Your task to perform on an android device: turn pop-ups on in chrome Image 0: 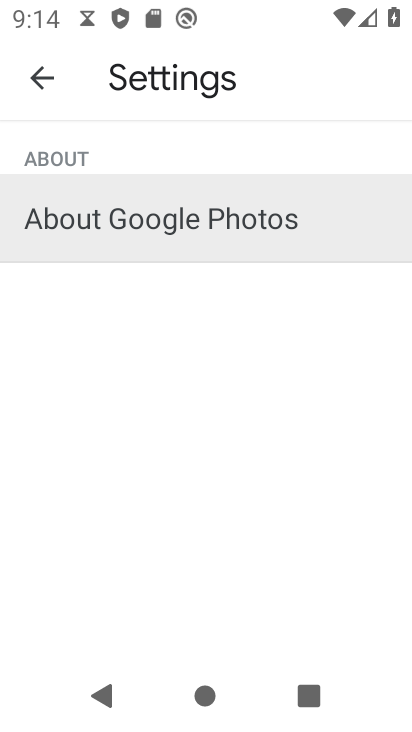
Step 0: press home button
Your task to perform on an android device: turn pop-ups on in chrome Image 1: 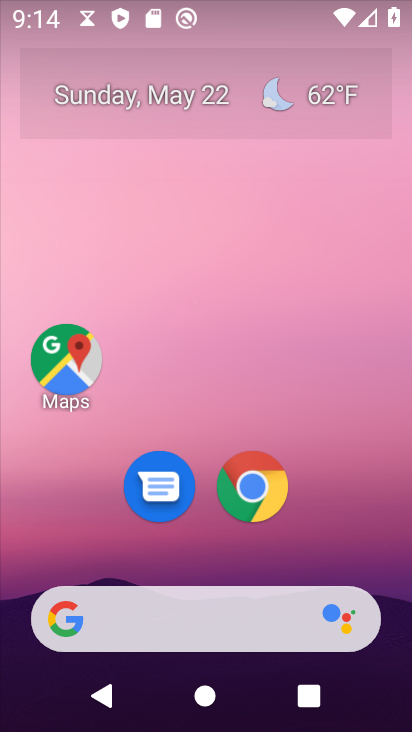
Step 1: click (250, 480)
Your task to perform on an android device: turn pop-ups on in chrome Image 2: 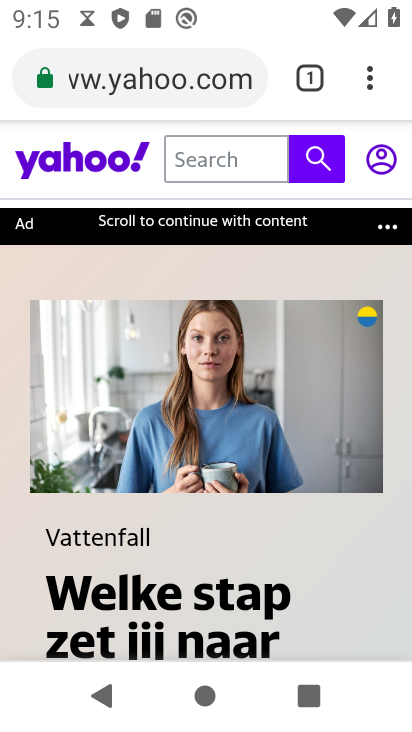
Step 2: click (369, 69)
Your task to perform on an android device: turn pop-ups on in chrome Image 3: 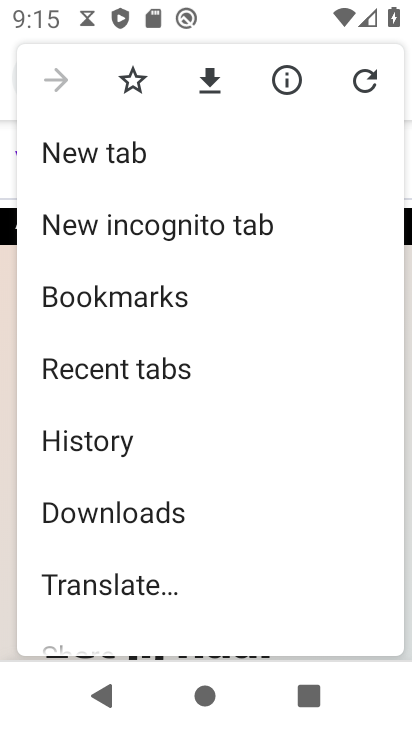
Step 3: drag from (199, 601) to (221, 138)
Your task to perform on an android device: turn pop-ups on in chrome Image 4: 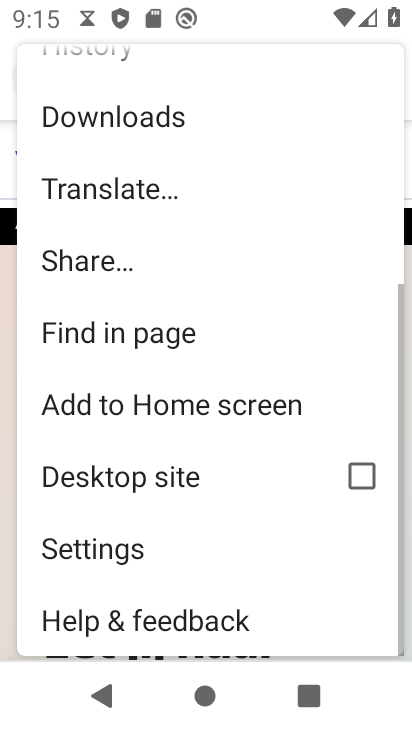
Step 4: click (161, 546)
Your task to perform on an android device: turn pop-ups on in chrome Image 5: 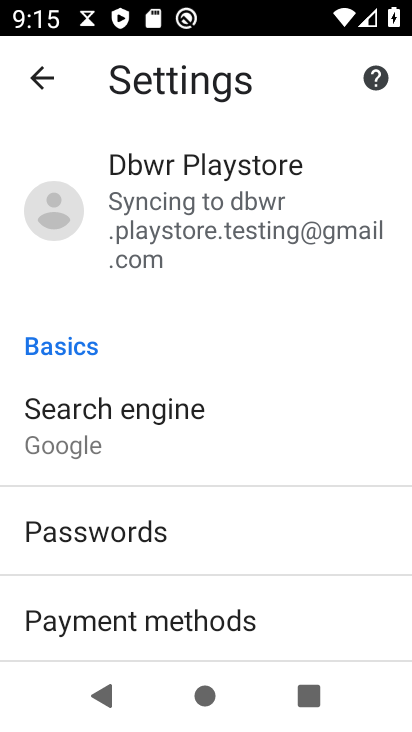
Step 5: drag from (265, 604) to (276, 155)
Your task to perform on an android device: turn pop-ups on in chrome Image 6: 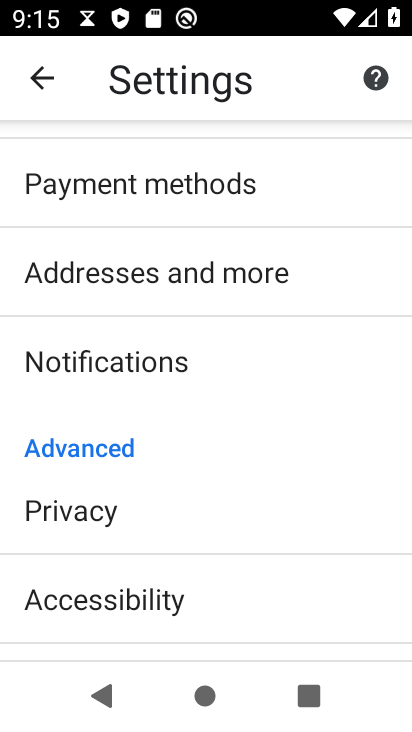
Step 6: drag from (220, 613) to (226, 177)
Your task to perform on an android device: turn pop-ups on in chrome Image 7: 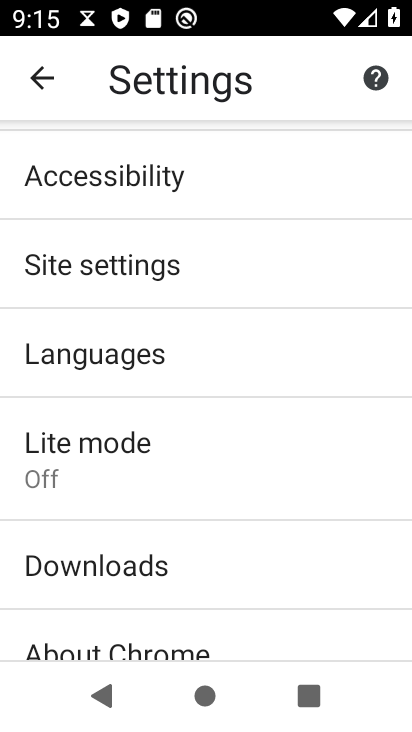
Step 7: click (209, 267)
Your task to perform on an android device: turn pop-ups on in chrome Image 8: 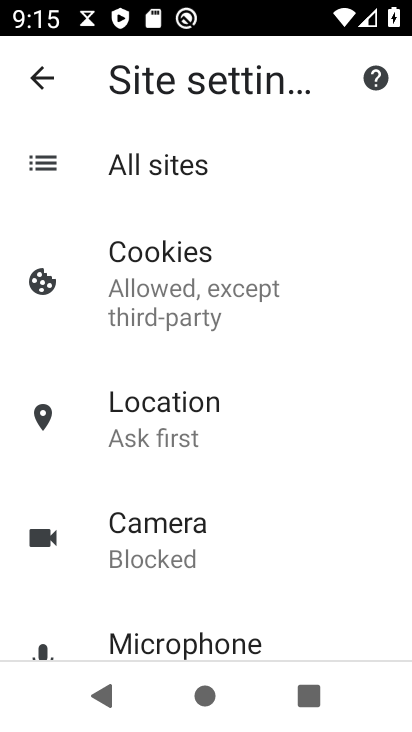
Step 8: drag from (250, 596) to (272, 130)
Your task to perform on an android device: turn pop-ups on in chrome Image 9: 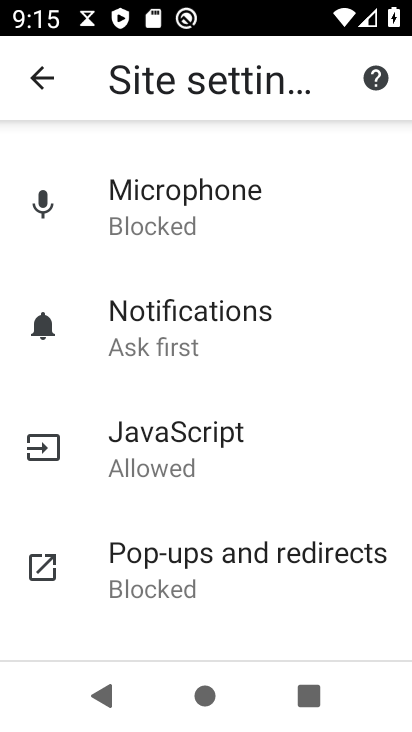
Step 9: click (236, 581)
Your task to perform on an android device: turn pop-ups on in chrome Image 10: 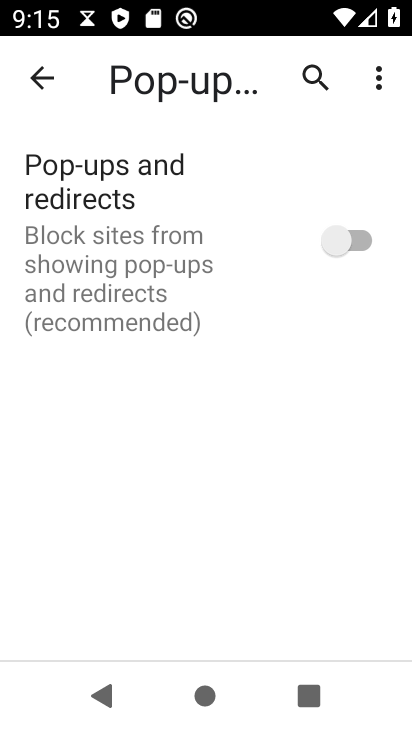
Step 10: click (347, 235)
Your task to perform on an android device: turn pop-ups on in chrome Image 11: 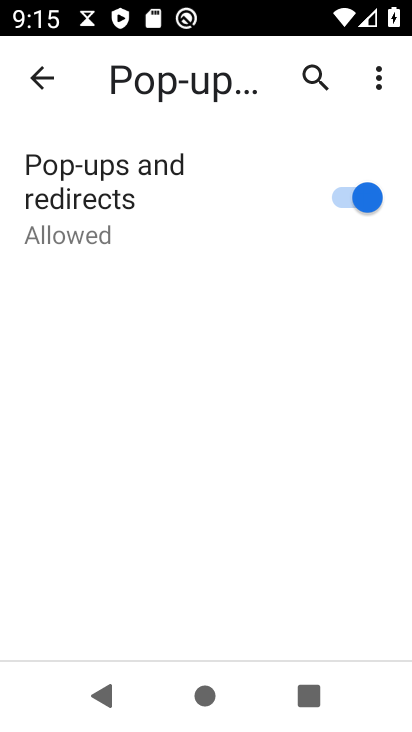
Step 11: task complete